Your task to perform on an android device: Go to sound settings Image 0: 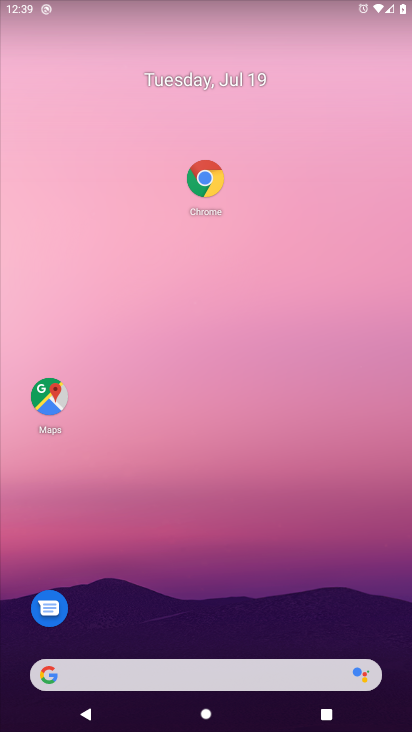
Step 0: drag from (18, 690) to (239, 52)
Your task to perform on an android device: Go to sound settings Image 1: 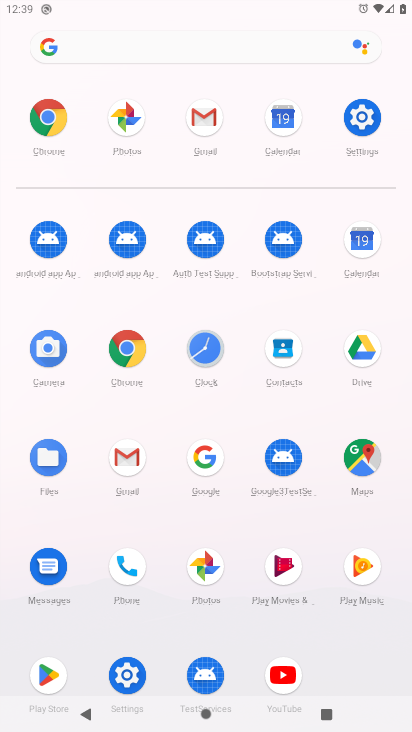
Step 1: click (136, 680)
Your task to perform on an android device: Go to sound settings Image 2: 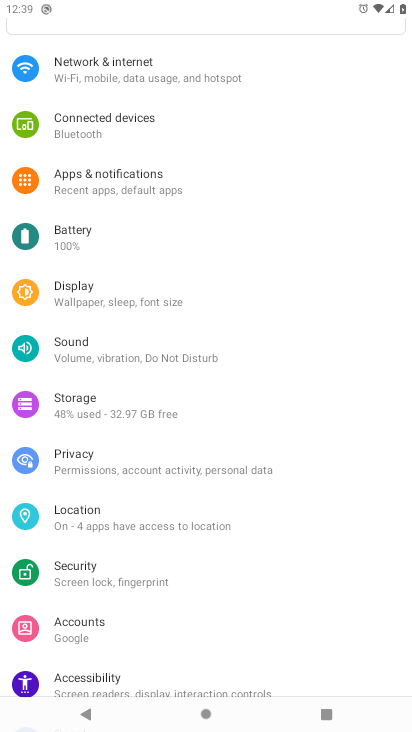
Step 2: click (115, 349)
Your task to perform on an android device: Go to sound settings Image 3: 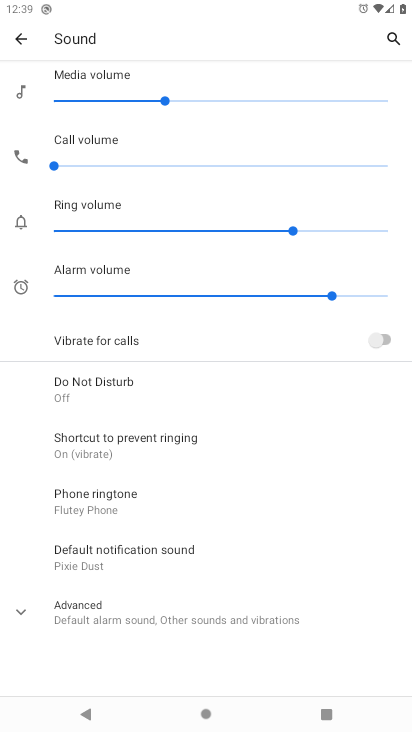
Step 3: task complete